Your task to perform on an android device: turn off location history Image 0: 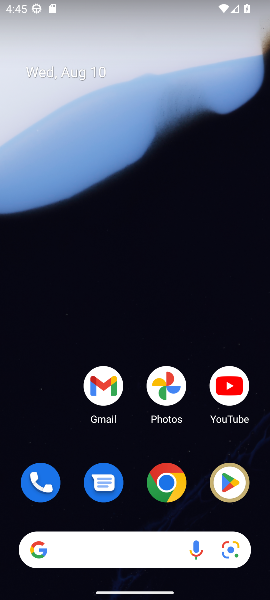
Step 0: drag from (48, 396) to (126, 0)
Your task to perform on an android device: turn off location history Image 1: 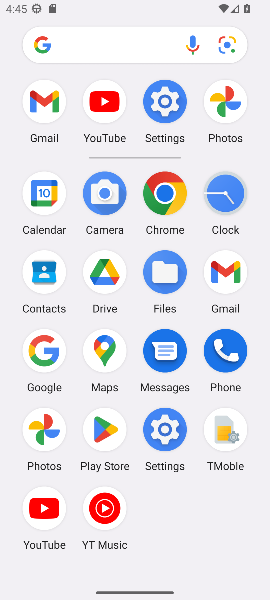
Step 1: click (165, 103)
Your task to perform on an android device: turn off location history Image 2: 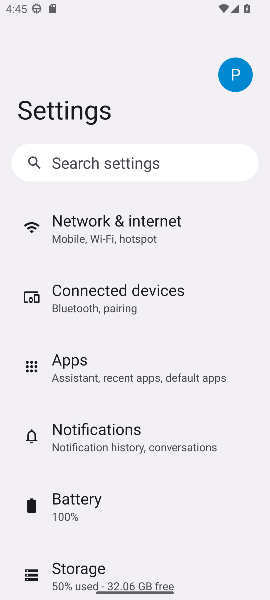
Step 2: drag from (149, 471) to (202, 1)
Your task to perform on an android device: turn off location history Image 3: 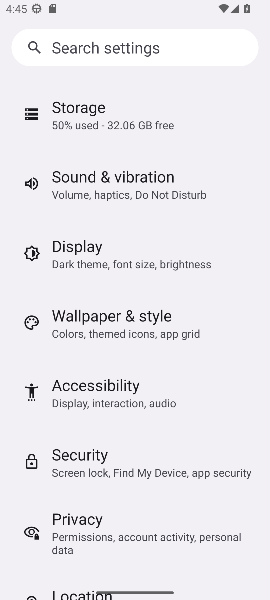
Step 3: drag from (149, 430) to (184, 52)
Your task to perform on an android device: turn off location history Image 4: 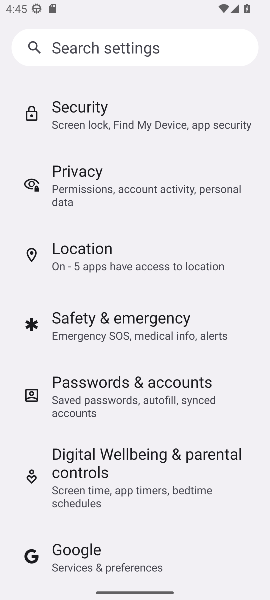
Step 4: click (144, 256)
Your task to perform on an android device: turn off location history Image 5: 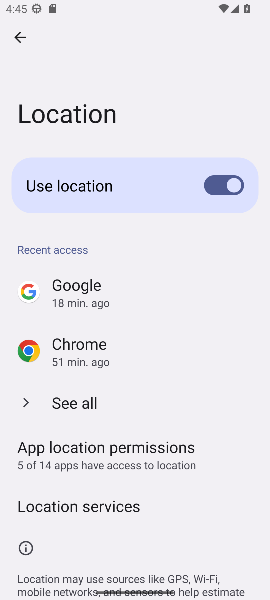
Step 5: drag from (146, 490) to (165, 160)
Your task to perform on an android device: turn off location history Image 6: 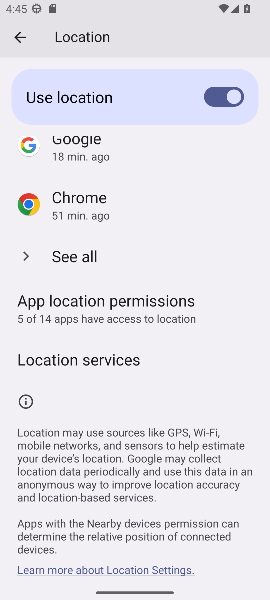
Step 6: click (131, 364)
Your task to perform on an android device: turn off location history Image 7: 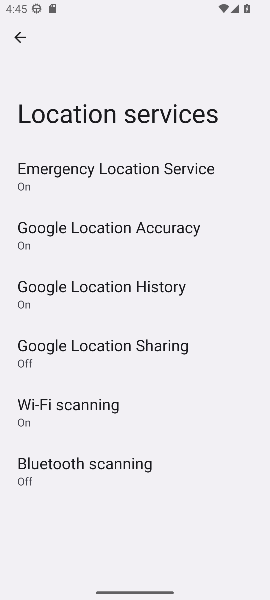
Step 7: click (138, 288)
Your task to perform on an android device: turn off location history Image 8: 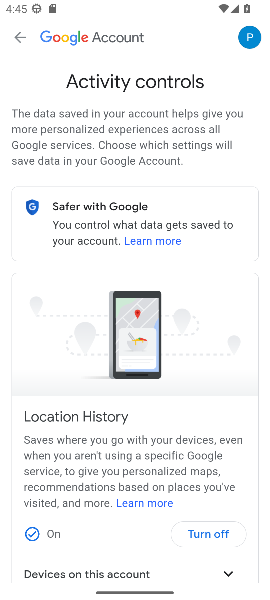
Step 8: click (216, 530)
Your task to perform on an android device: turn off location history Image 9: 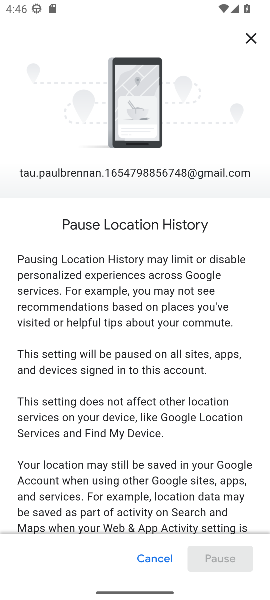
Step 9: drag from (155, 443) to (190, 83)
Your task to perform on an android device: turn off location history Image 10: 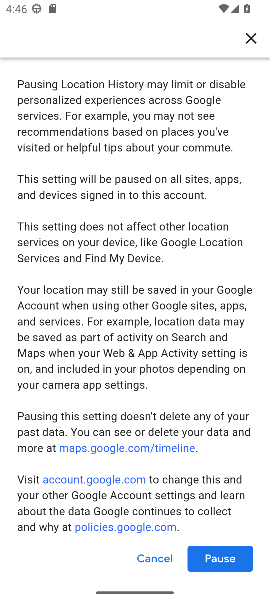
Step 10: click (223, 559)
Your task to perform on an android device: turn off location history Image 11: 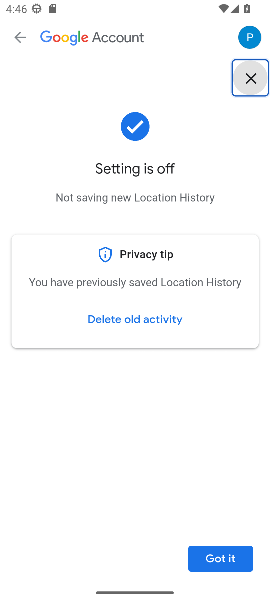
Step 11: click (228, 560)
Your task to perform on an android device: turn off location history Image 12: 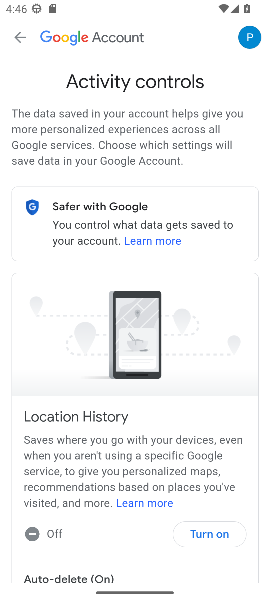
Step 12: task complete